Your task to perform on an android device: Open display settings Image 0: 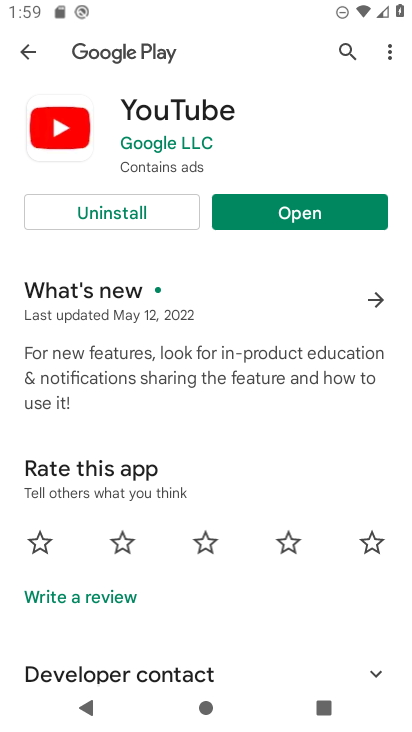
Step 0: press home button
Your task to perform on an android device: Open display settings Image 1: 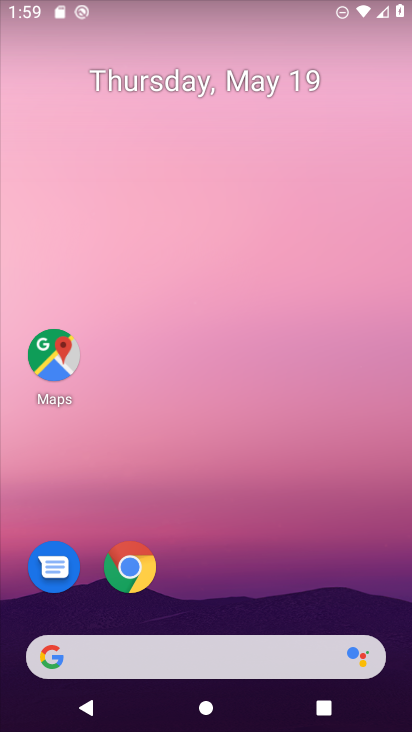
Step 1: drag from (224, 512) to (259, 61)
Your task to perform on an android device: Open display settings Image 2: 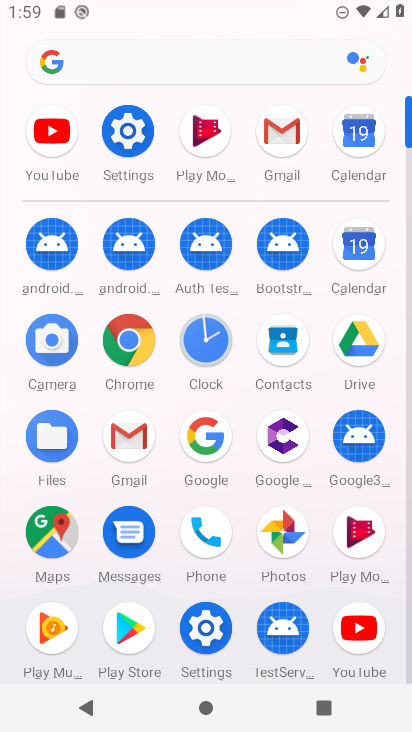
Step 2: click (138, 134)
Your task to perform on an android device: Open display settings Image 3: 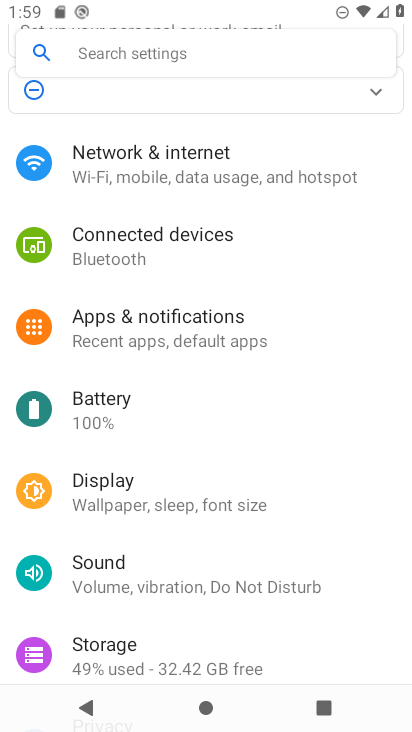
Step 3: click (146, 493)
Your task to perform on an android device: Open display settings Image 4: 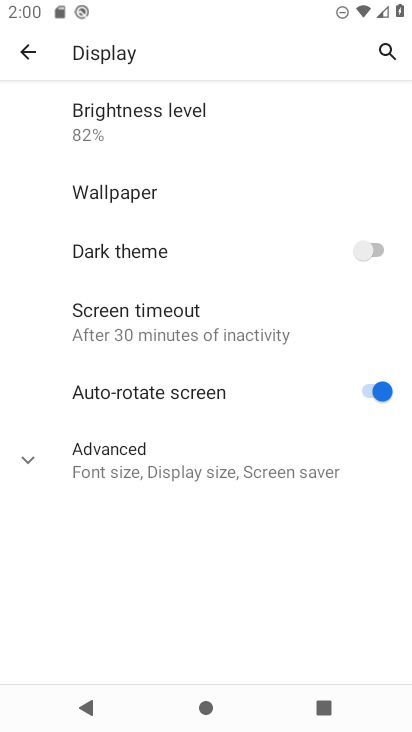
Step 4: task complete